Your task to perform on an android device: Open the stopwatch Image 0: 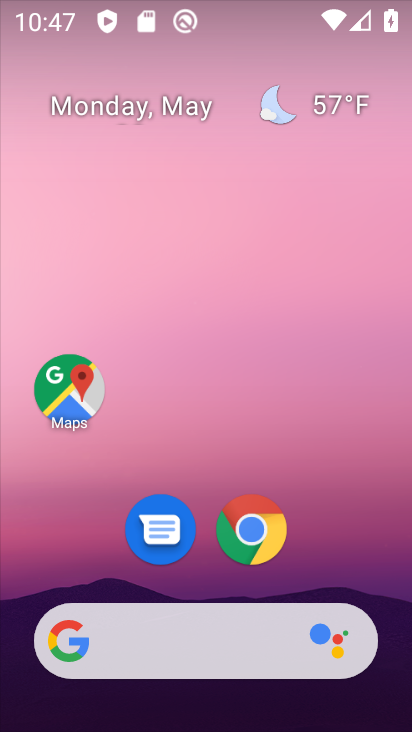
Step 0: drag from (216, 725) to (212, 25)
Your task to perform on an android device: Open the stopwatch Image 1: 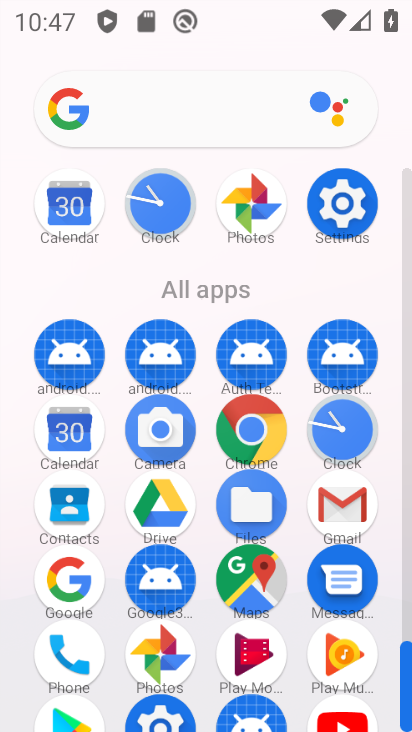
Step 1: click (335, 433)
Your task to perform on an android device: Open the stopwatch Image 2: 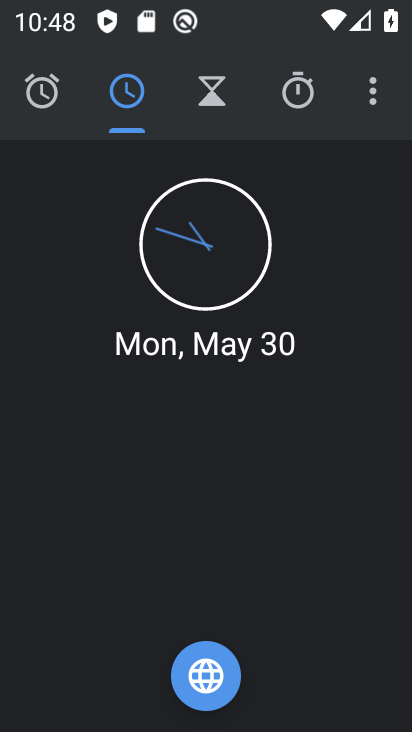
Step 2: click (299, 89)
Your task to perform on an android device: Open the stopwatch Image 3: 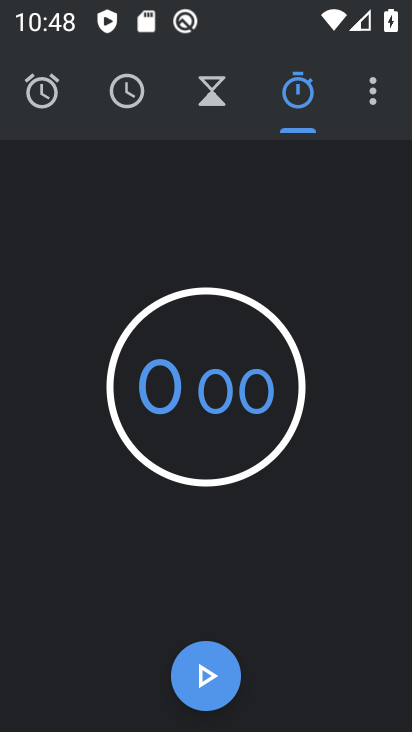
Step 3: task complete